Your task to perform on an android device: turn off javascript in the chrome app Image 0: 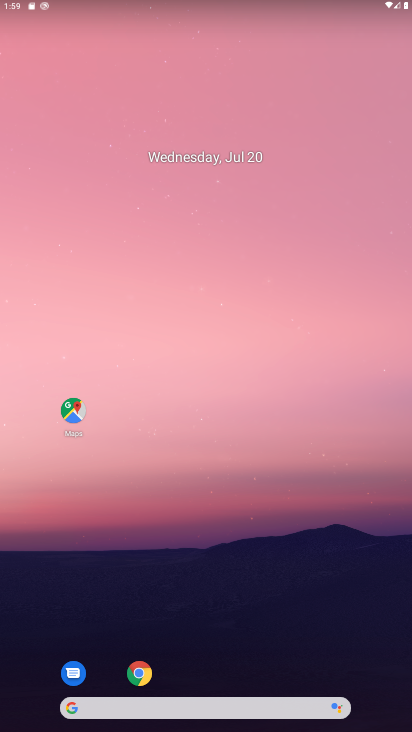
Step 0: click (140, 676)
Your task to perform on an android device: turn off javascript in the chrome app Image 1: 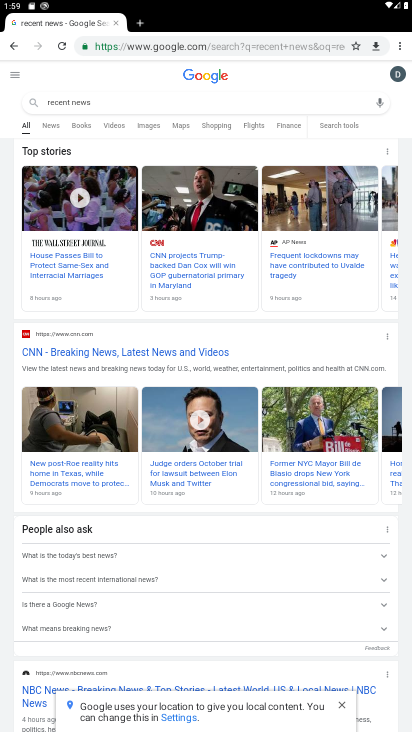
Step 1: drag from (400, 47) to (317, 279)
Your task to perform on an android device: turn off javascript in the chrome app Image 2: 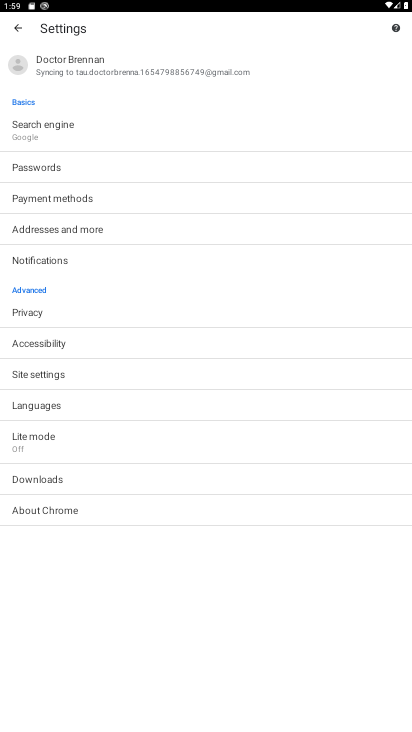
Step 2: click (76, 370)
Your task to perform on an android device: turn off javascript in the chrome app Image 3: 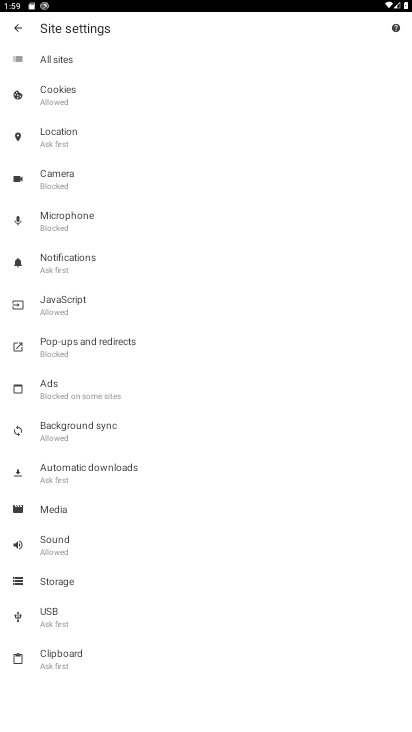
Step 3: click (85, 299)
Your task to perform on an android device: turn off javascript in the chrome app Image 4: 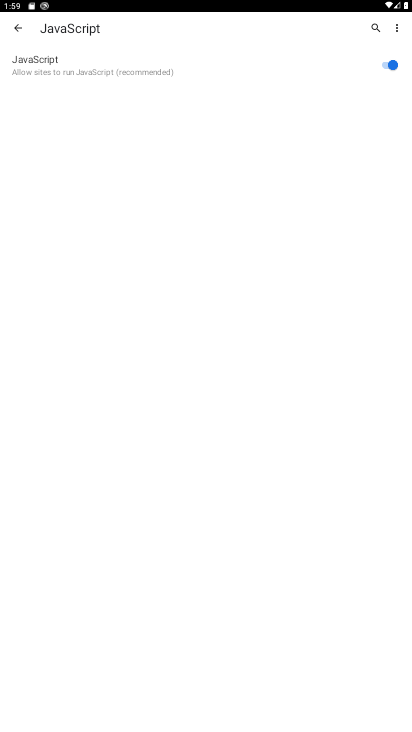
Step 4: click (387, 62)
Your task to perform on an android device: turn off javascript in the chrome app Image 5: 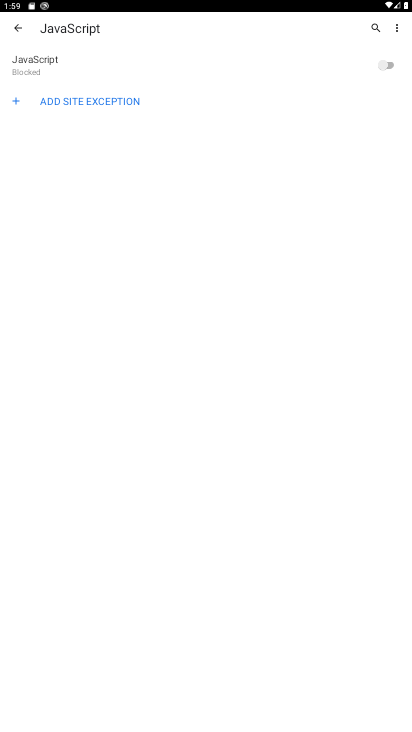
Step 5: task complete